Your task to perform on an android device: Search for sushi restaurants on Maps Image 0: 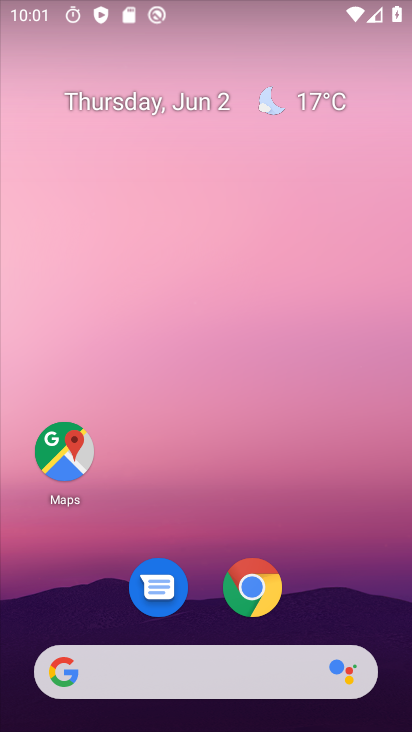
Step 0: press home button
Your task to perform on an android device: Search for sushi restaurants on Maps Image 1: 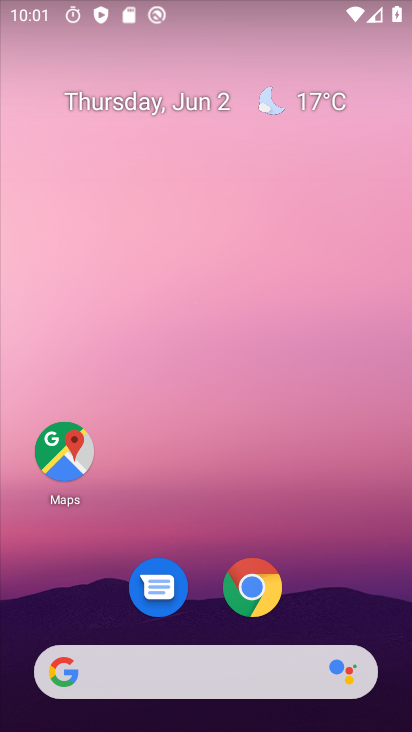
Step 1: click (62, 443)
Your task to perform on an android device: Search for sushi restaurants on Maps Image 2: 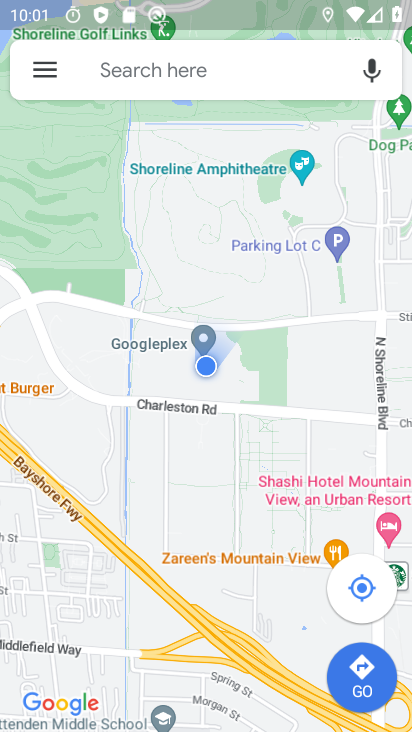
Step 2: click (127, 67)
Your task to perform on an android device: Search for sushi restaurants on Maps Image 3: 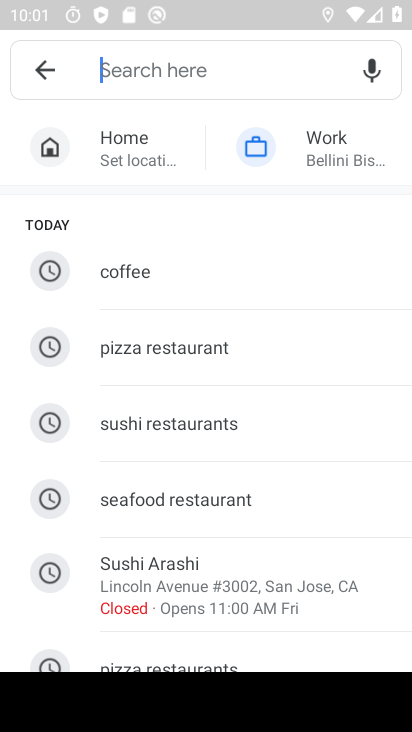
Step 3: click (156, 433)
Your task to perform on an android device: Search for sushi restaurants on Maps Image 4: 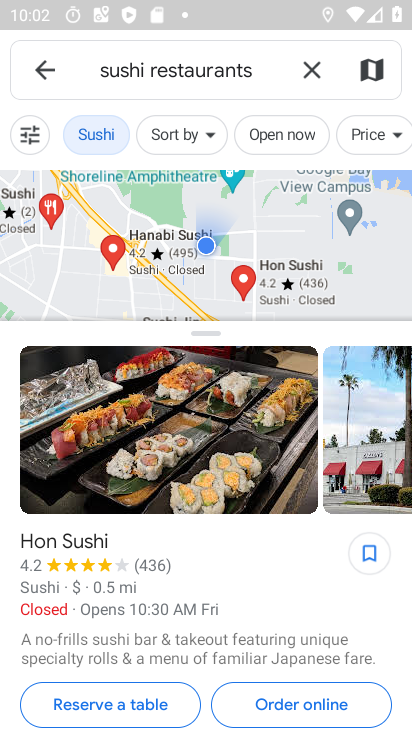
Step 4: task complete